Your task to perform on an android device: Check the news Image 0: 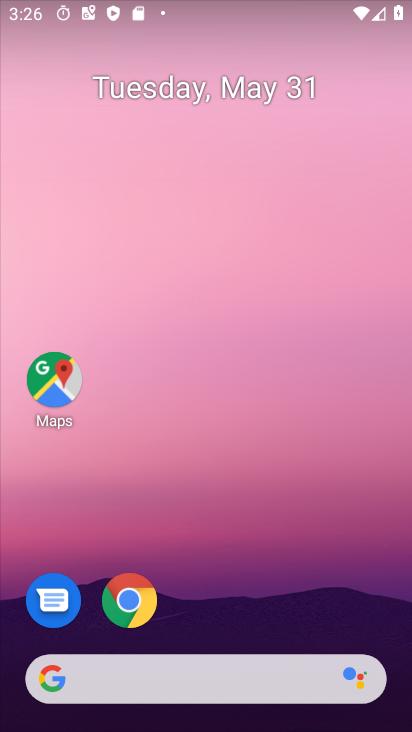
Step 0: press home button
Your task to perform on an android device: Check the news Image 1: 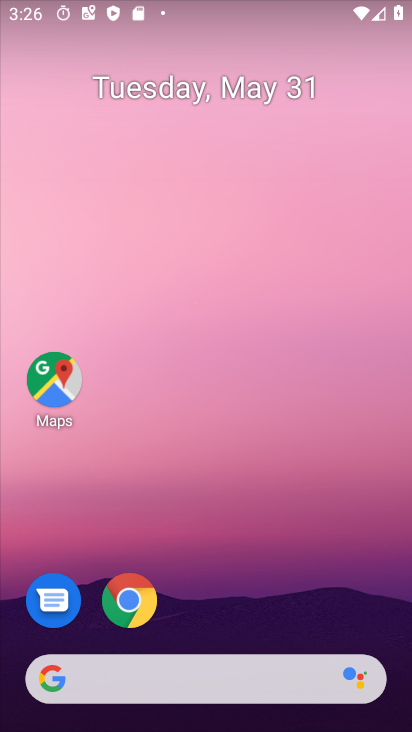
Step 1: task complete